Your task to perform on an android device: refresh tabs in the chrome app Image 0: 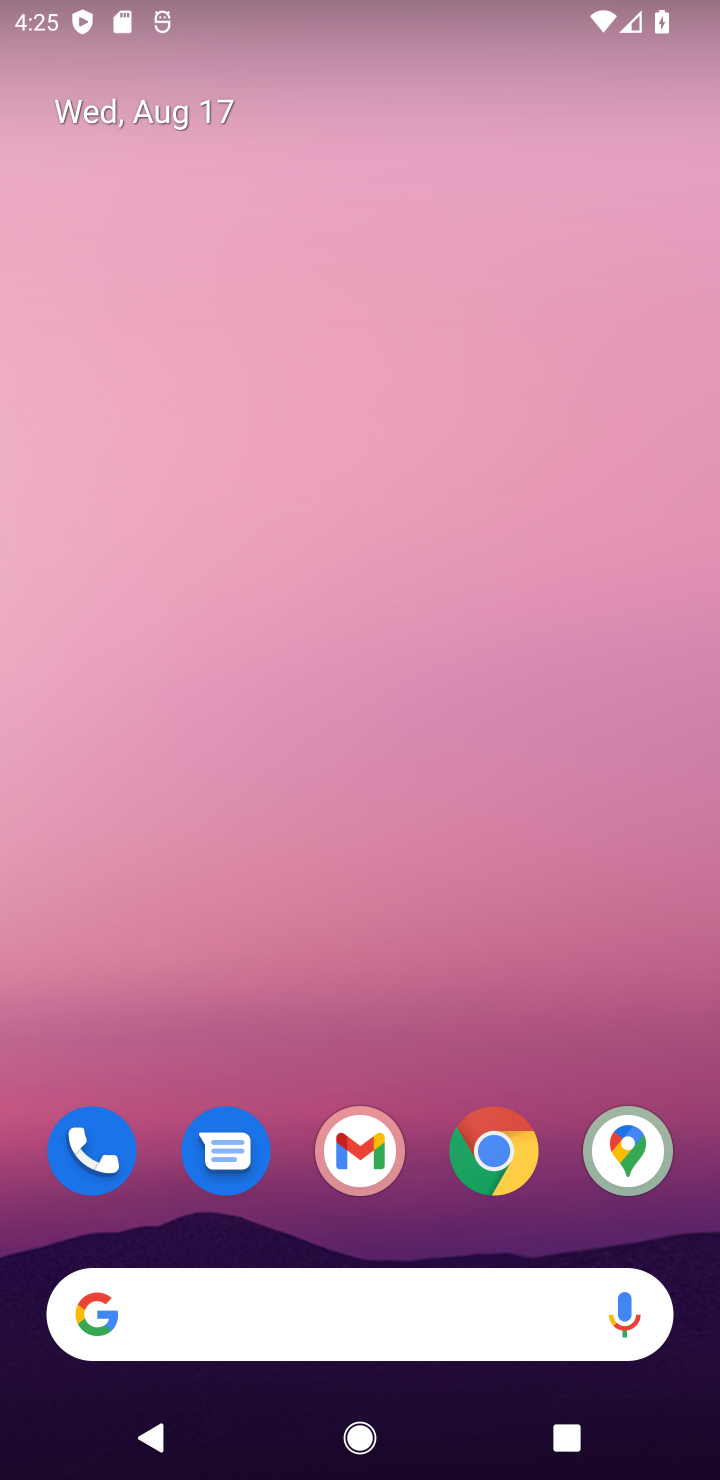
Step 0: click (495, 1183)
Your task to perform on an android device: refresh tabs in the chrome app Image 1: 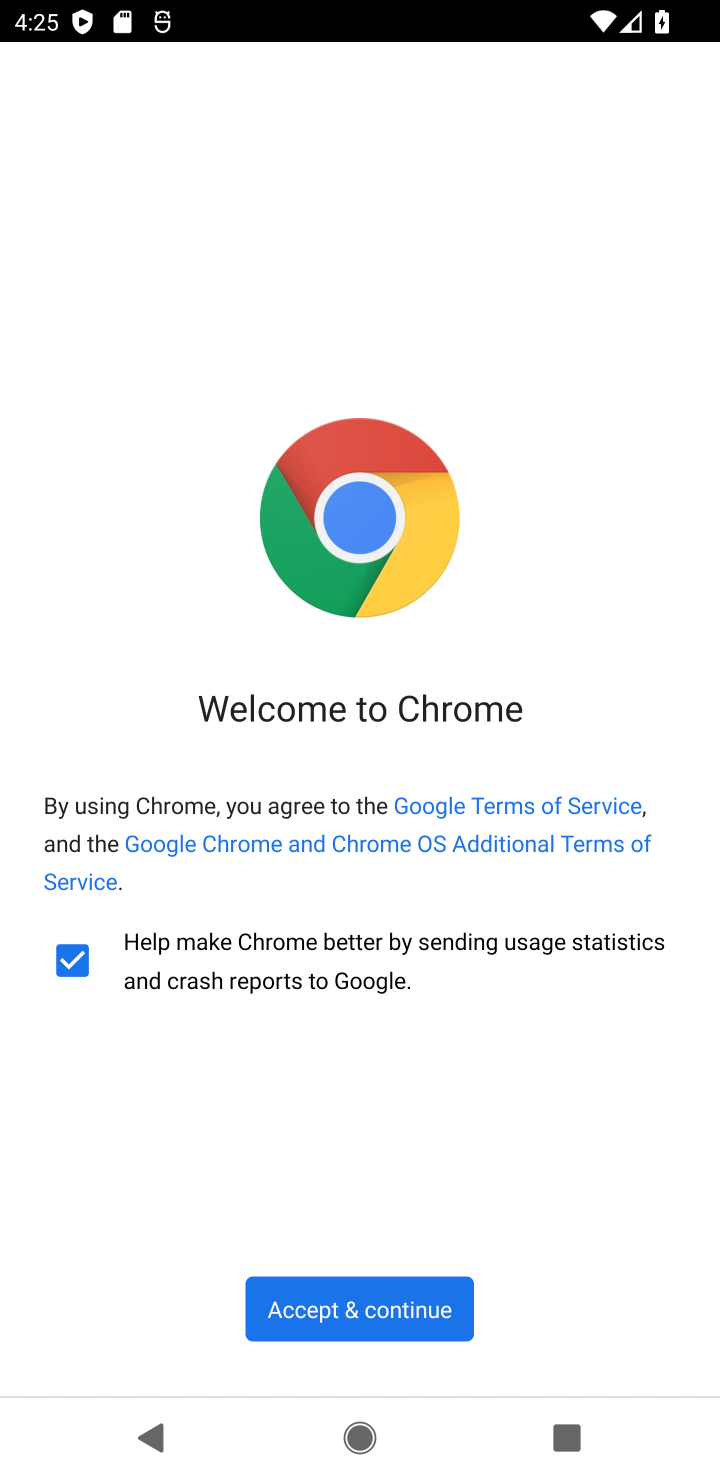
Step 1: click (362, 1324)
Your task to perform on an android device: refresh tabs in the chrome app Image 2: 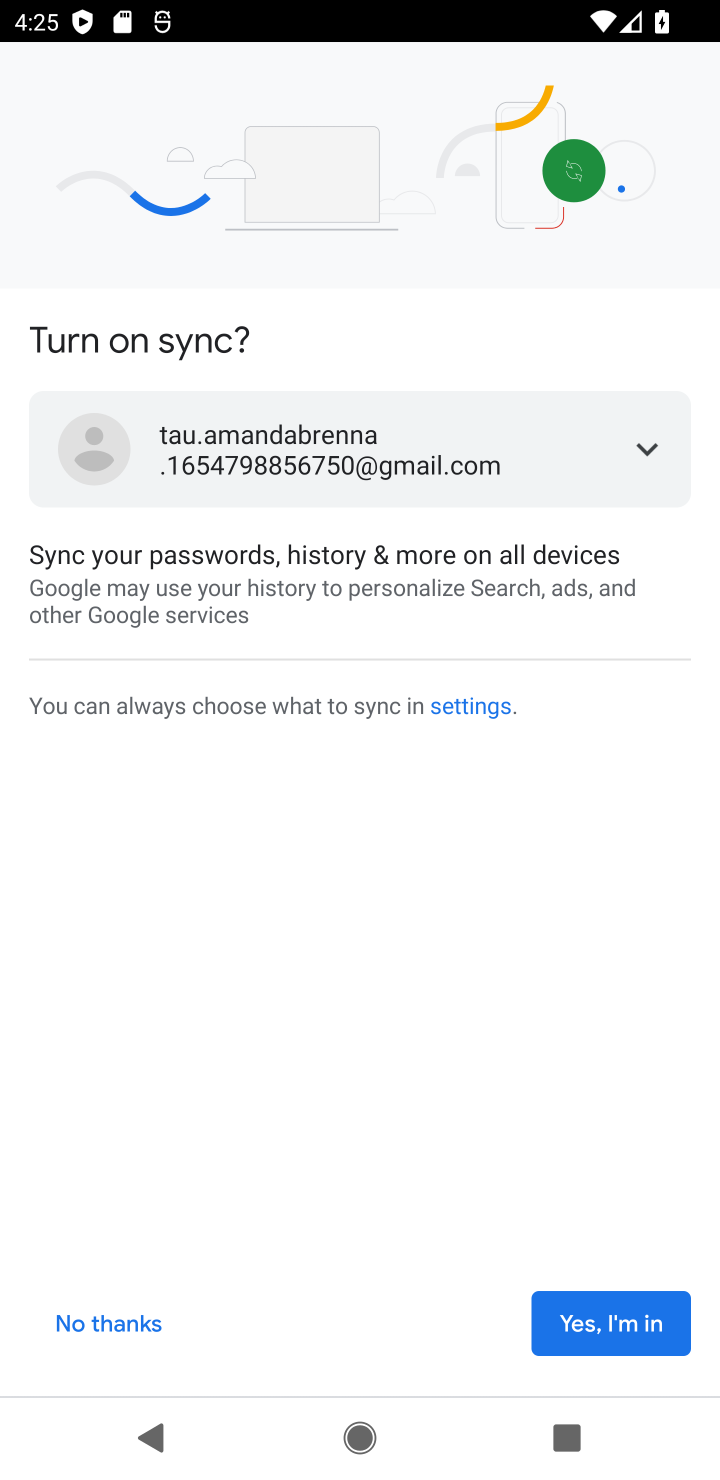
Step 2: click (617, 1315)
Your task to perform on an android device: refresh tabs in the chrome app Image 3: 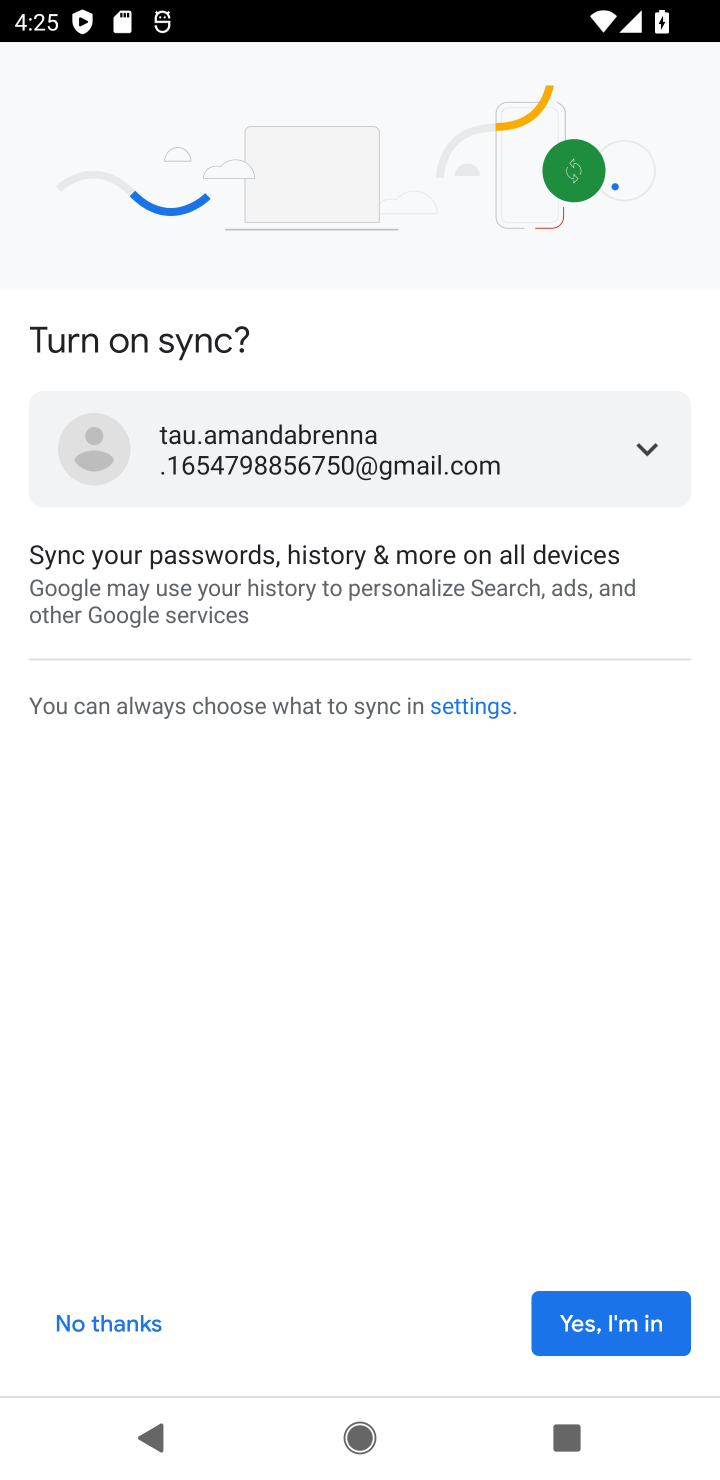
Step 3: click (603, 1302)
Your task to perform on an android device: refresh tabs in the chrome app Image 4: 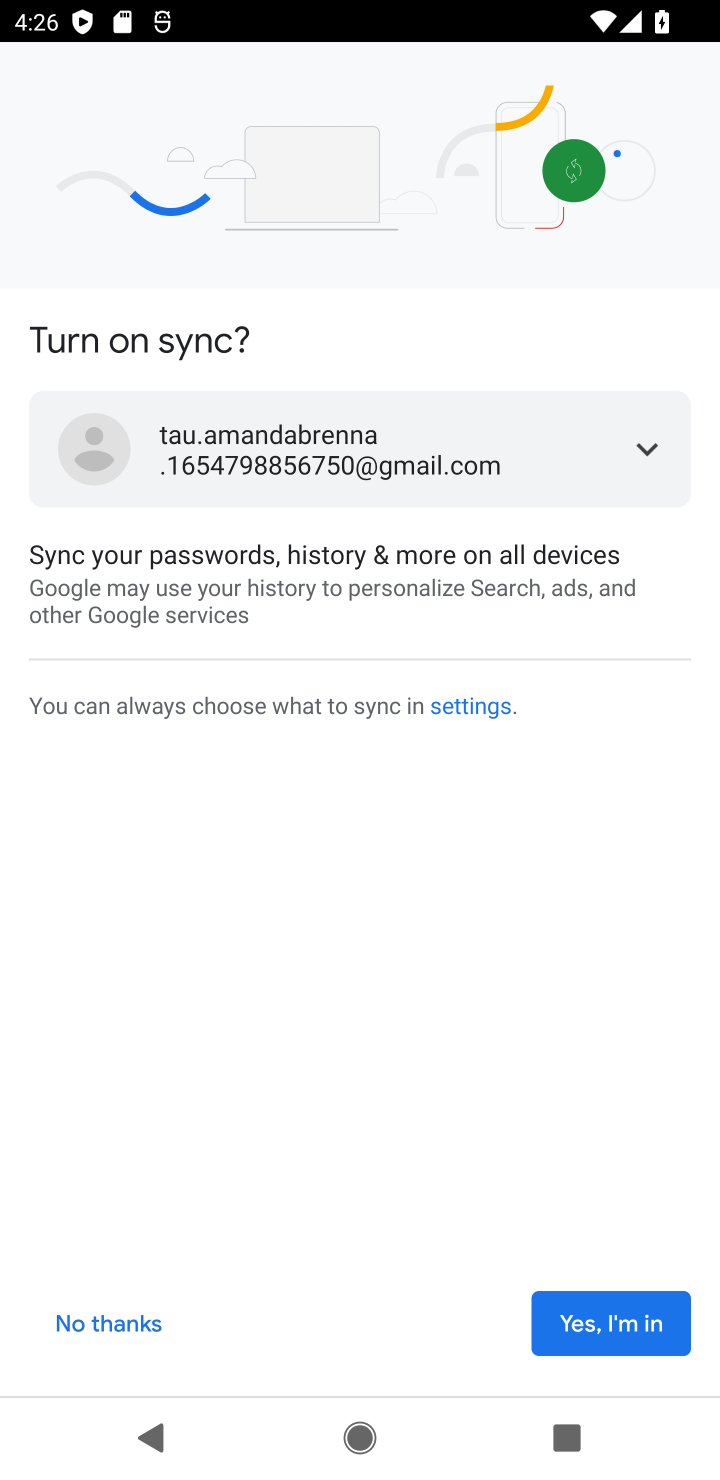
Step 4: click (650, 1320)
Your task to perform on an android device: refresh tabs in the chrome app Image 5: 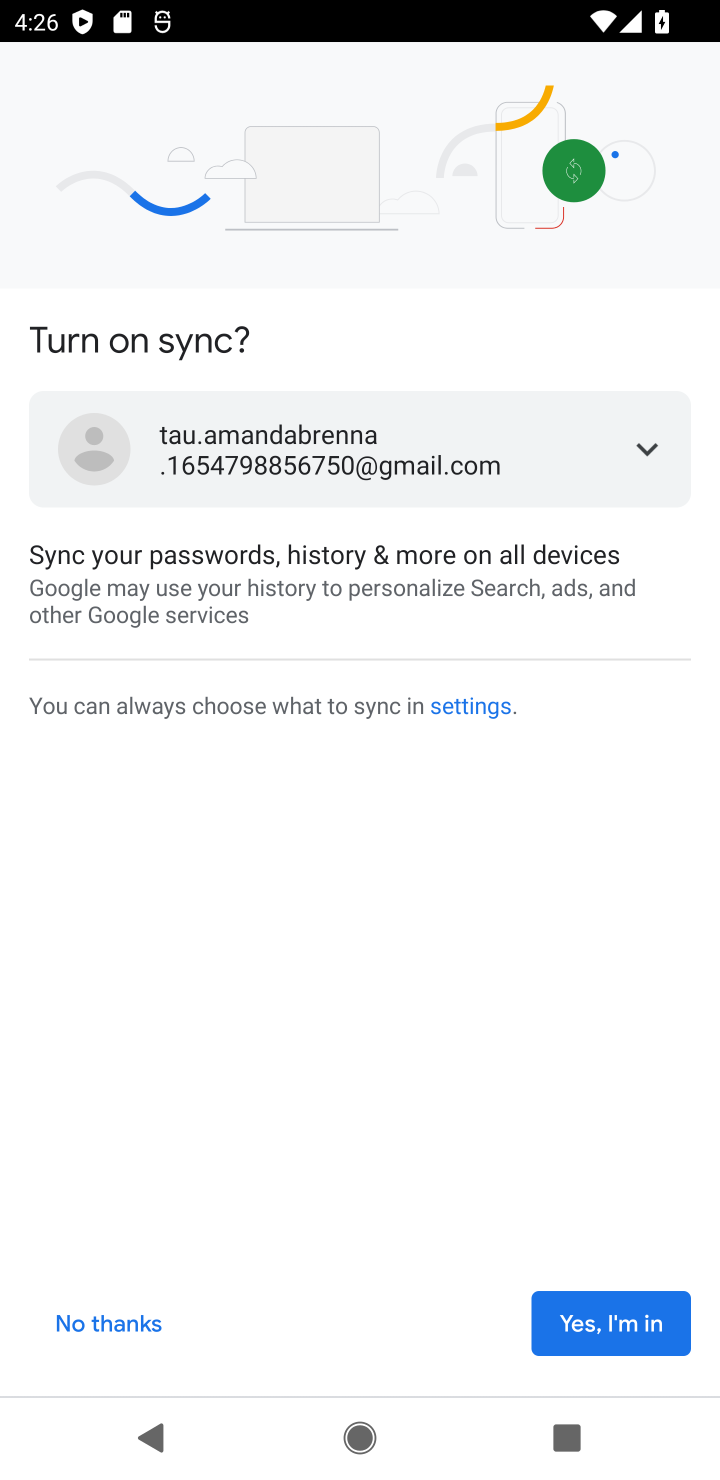
Step 5: task complete